Your task to perform on an android device: Go to sound settings Image 0: 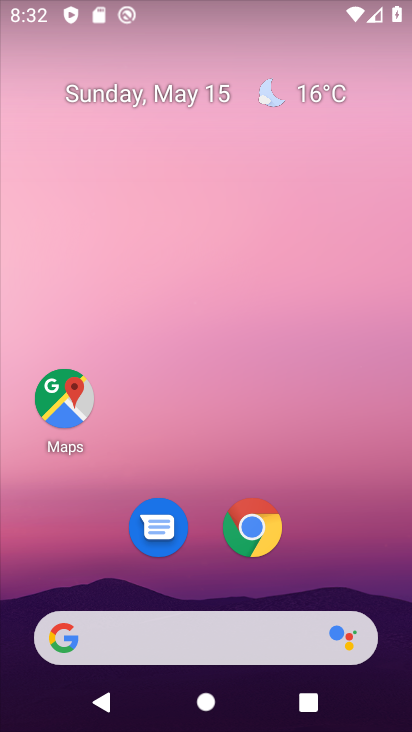
Step 0: drag from (319, 587) to (293, 9)
Your task to perform on an android device: Go to sound settings Image 1: 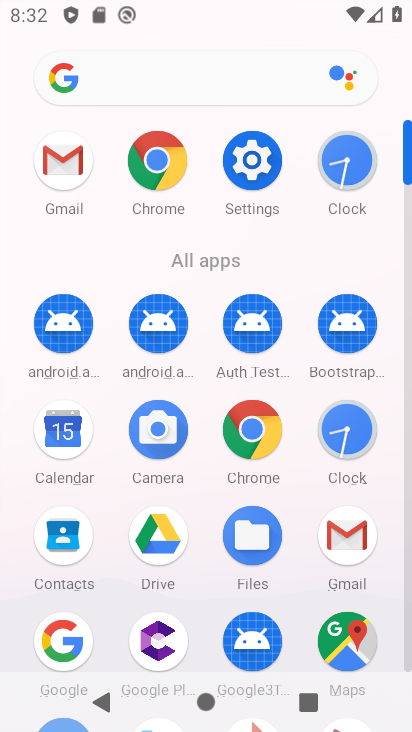
Step 1: click (250, 153)
Your task to perform on an android device: Go to sound settings Image 2: 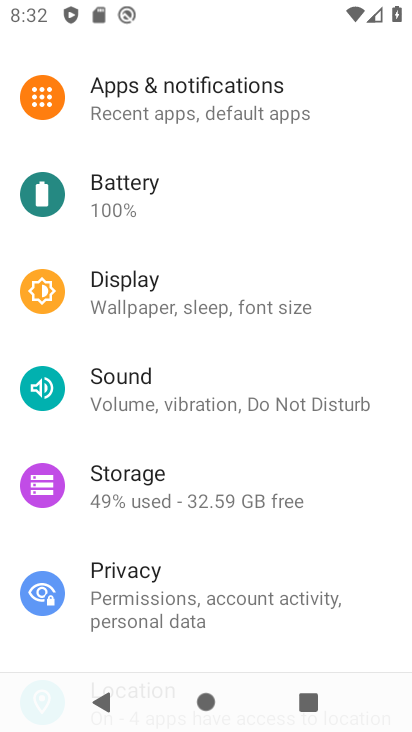
Step 2: click (99, 390)
Your task to perform on an android device: Go to sound settings Image 3: 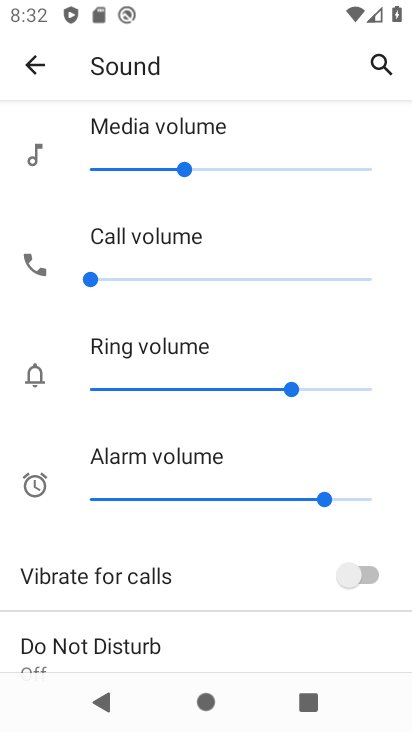
Step 3: task complete